Your task to perform on an android device: When is my next appointment? Image 0: 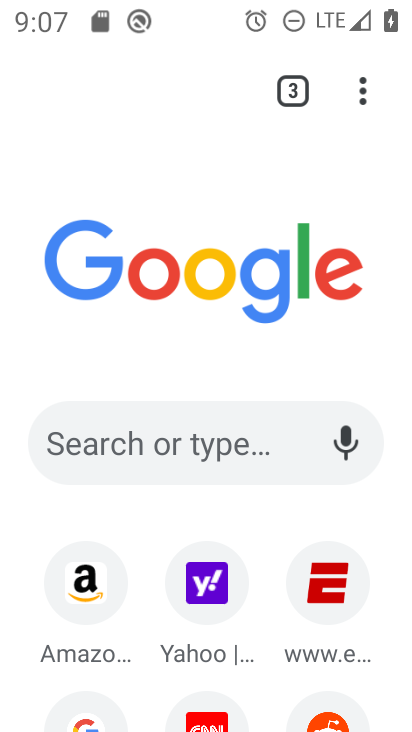
Step 0: press home button
Your task to perform on an android device: When is my next appointment? Image 1: 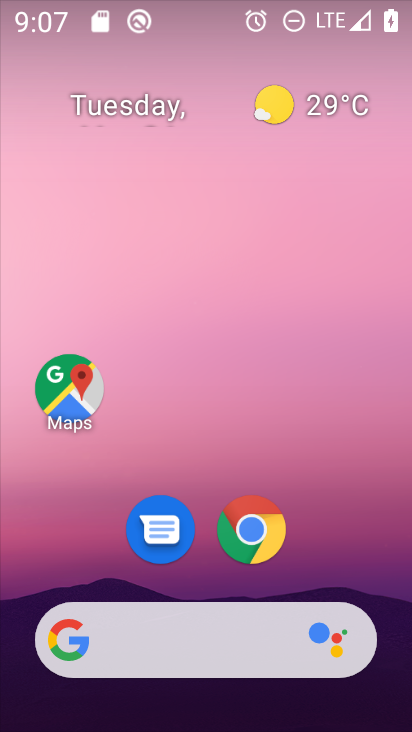
Step 1: drag from (390, 636) to (296, 84)
Your task to perform on an android device: When is my next appointment? Image 2: 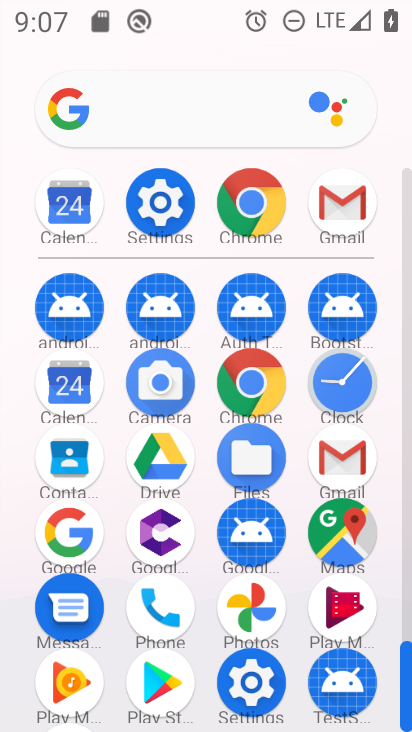
Step 2: click (61, 378)
Your task to perform on an android device: When is my next appointment? Image 3: 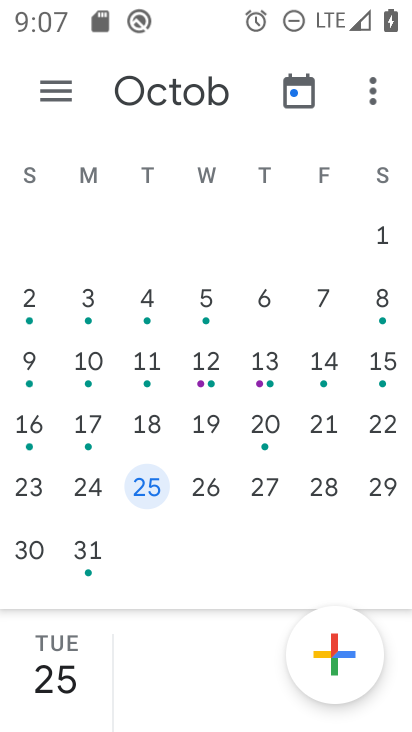
Step 3: task complete